Your task to perform on an android device: all mails in gmail Image 0: 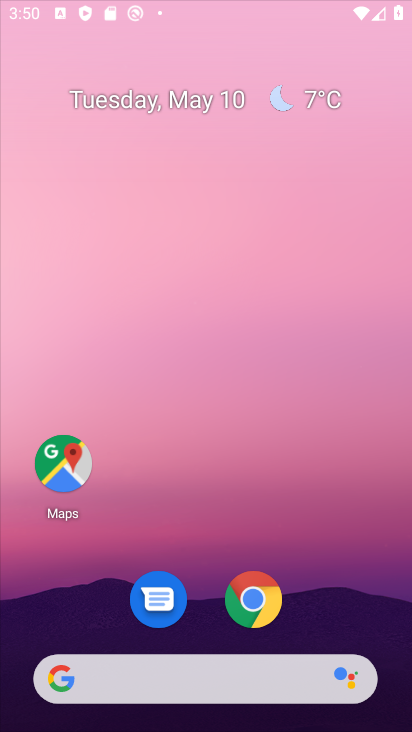
Step 0: drag from (243, 691) to (274, 102)
Your task to perform on an android device: all mails in gmail Image 1: 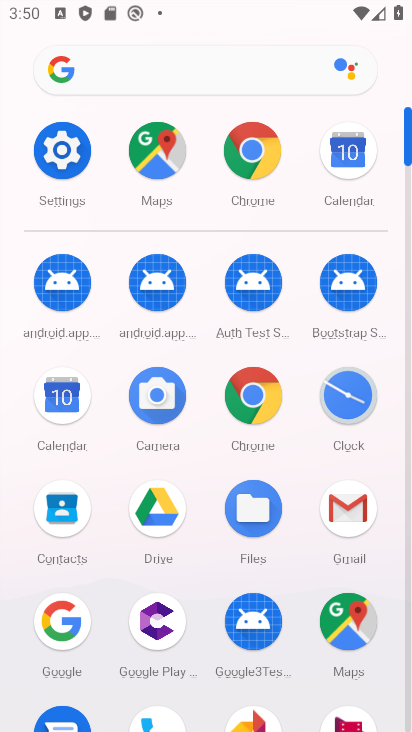
Step 1: drag from (261, 573) to (245, 442)
Your task to perform on an android device: all mails in gmail Image 2: 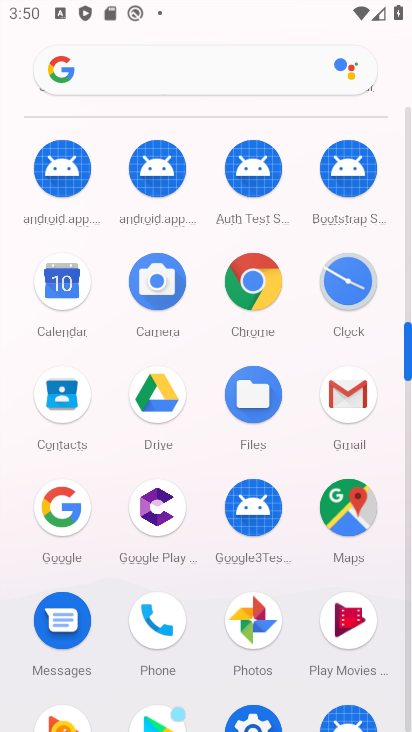
Step 2: click (347, 407)
Your task to perform on an android device: all mails in gmail Image 3: 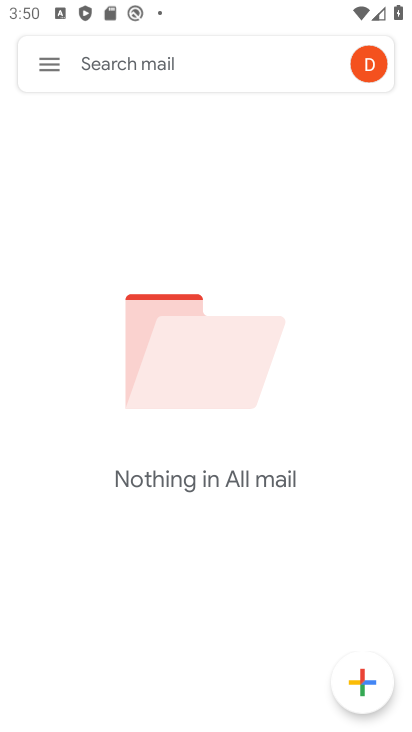
Step 3: task complete